Your task to perform on an android device: toggle show notifications on the lock screen Image 0: 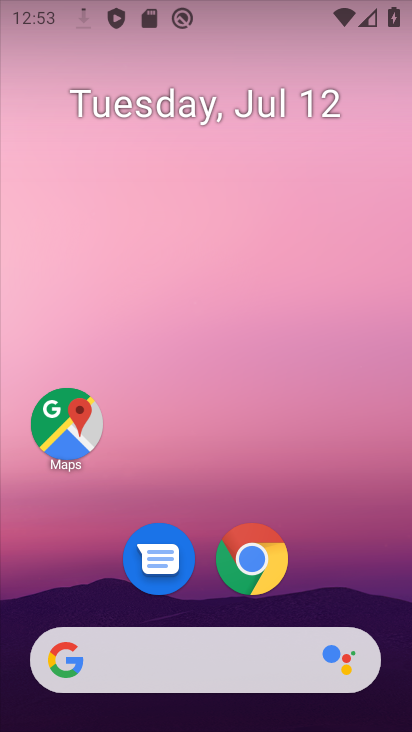
Step 0: drag from (372, 577) to (346, 239)
Your task to perform on an android device: toggle show notifications on the lock screen Image 1: 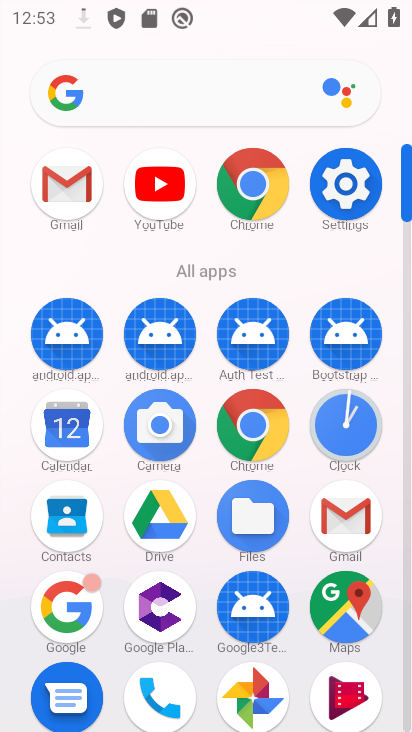
Step 1: click (358, 187)
Your task to perform on an android device: toggle show notifications on the lock screen Image 2: 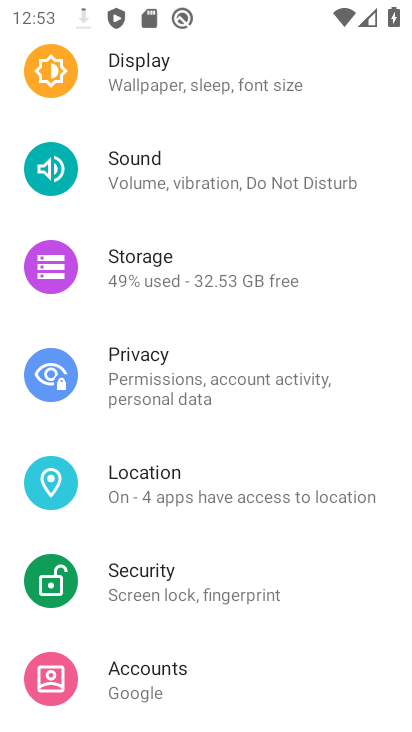
Step 2: drag from (359, 569) to (335, 426)
Your task to perform on an android device: toggle show notifications on the lock screen Image 3: 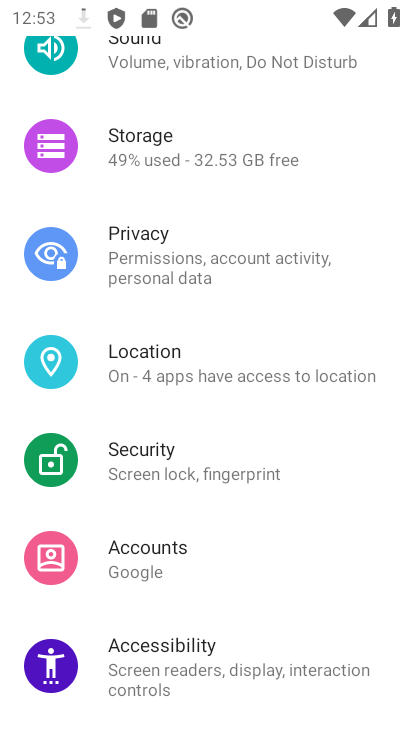
Step 3: drag from (353, 550) to (353, 413)
Your task to perform on an android device: toggle show notifications on the lock screen Image 4: 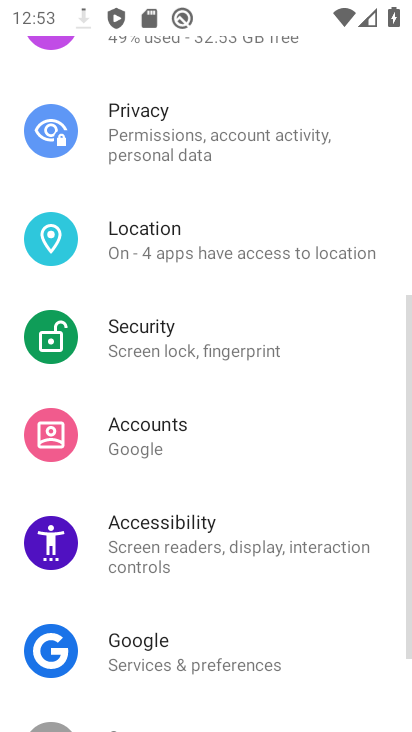
Step 4: drag from (335, 601) to (317, 442)
Your task to perform on an android device: toggle show notifications on the lock screen Image 5: 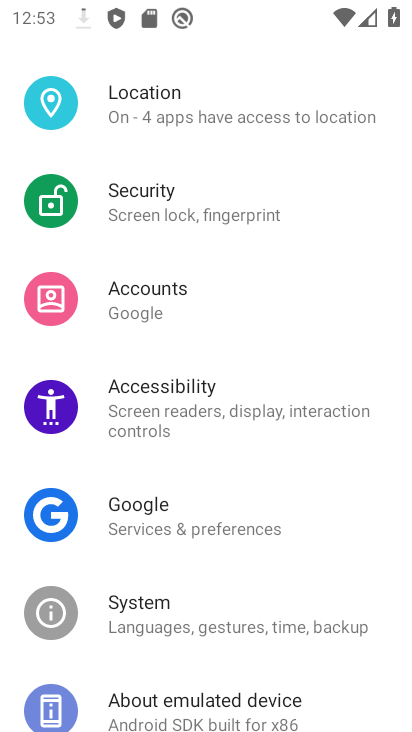
Step 5: drag from (325, 586) to (326, 445)
Your task to perform on an android device: toggle show notifications on the lock screen Image 6: 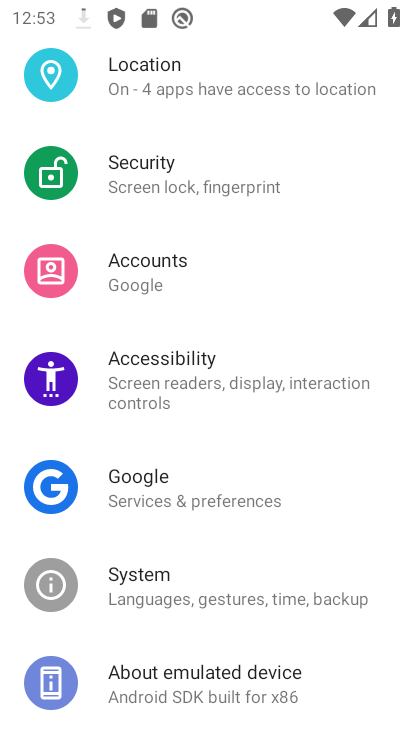
Step 6: drag from (338, 643) to (338, 495)
Your task to perform on an android device: toggle show notifications on the lock screen Image 7: 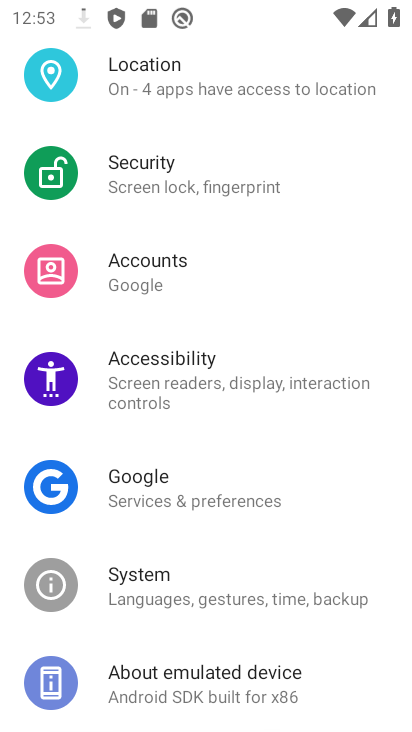
Step 7: drag from (346, 287) to (347, 487)
Your task to perform on an android device: toggle show notifications on the lock screen Image 8: 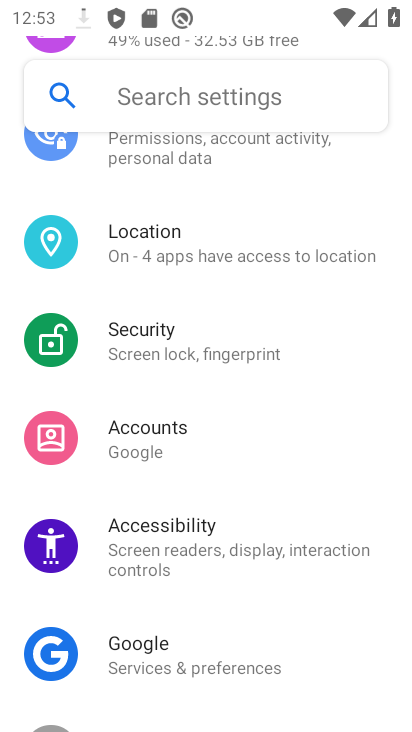
Step 8: drag from (345, 202) to (324, 434)
Your task to perform on an android device: toggle show notifications on the lock screen Image 9: 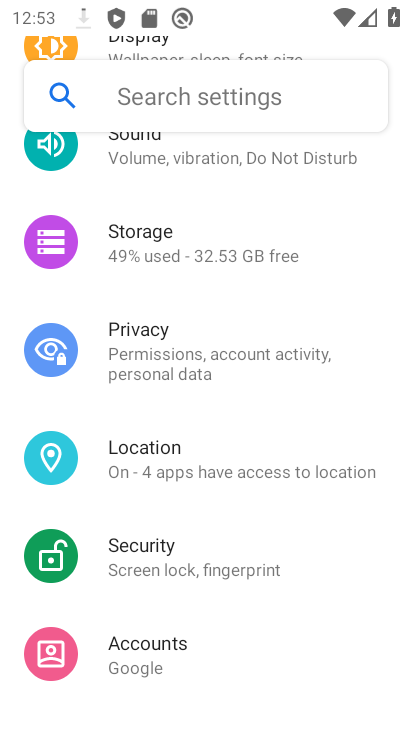
Step 9: drag from (330, 234) to (335, 377)
Your task to perform on an android device: toggle show notifications on the lock screen Image 10: 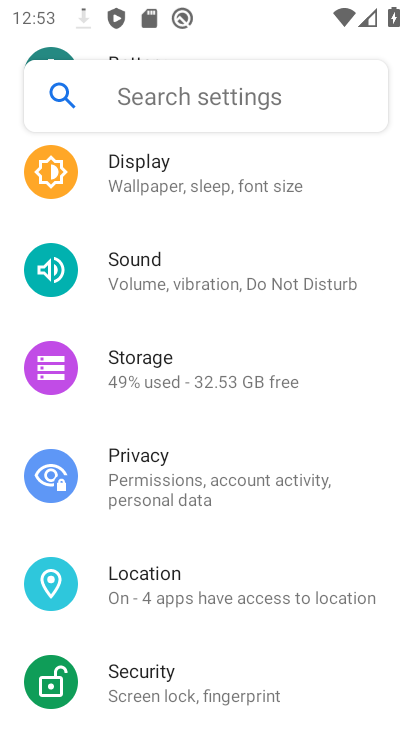
Step 10: drag from (346, 219) to (346, 384)
Your task to perform on an android device: toggle show notifications on the lock screen Image 11: 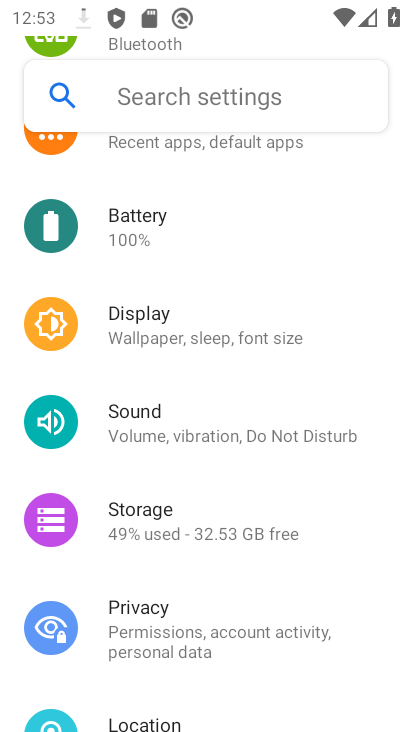
Step 11: drag from (308, 276) to (292, 458)
Your task to perform on an android device: toggle show notifications on the lock screen Image 12: 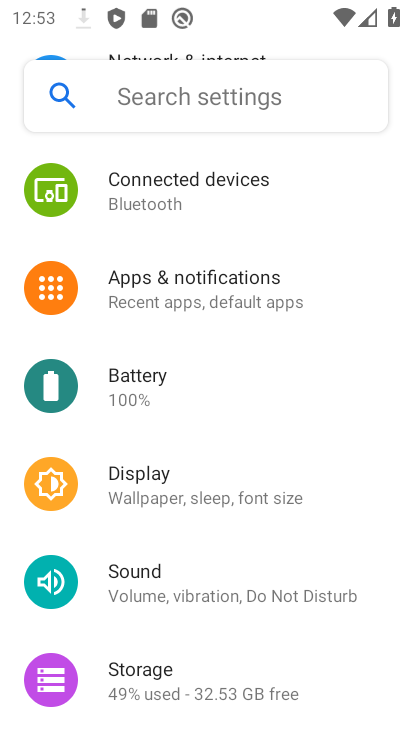
Step 12: drag from (327, 247) to (330, 498)
Your task to perform on an android device: toggle show notifications on the lock screen Image 13: 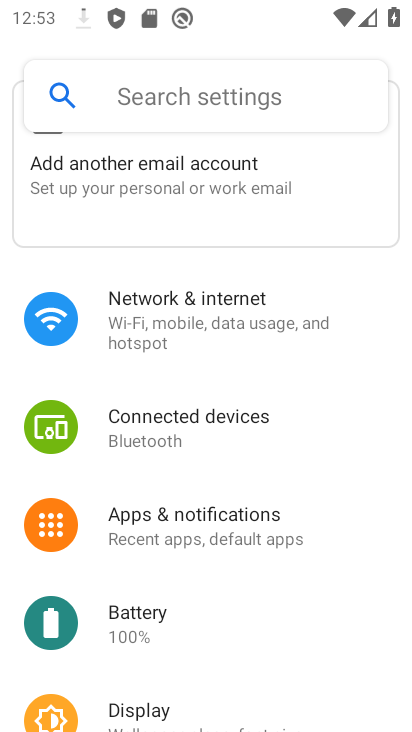
Step 13: click (262, 525)
Your task to perform on an android device: toggle show notifications on the lock screen Image 14: 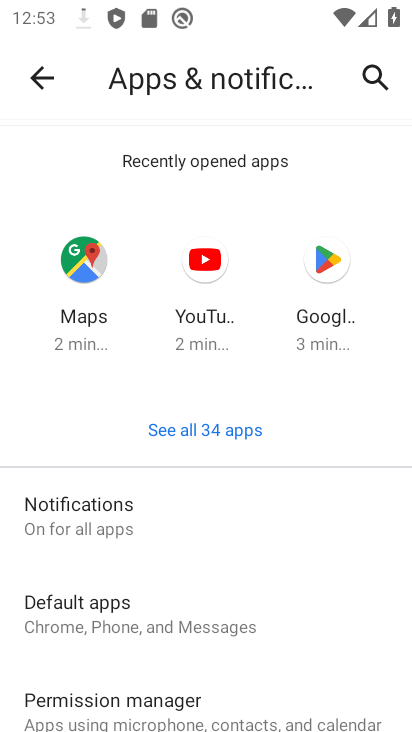
Step 14: click (95, 521)
Your task to perform on an android device: toggle show notifications on the lock screen Image 15: 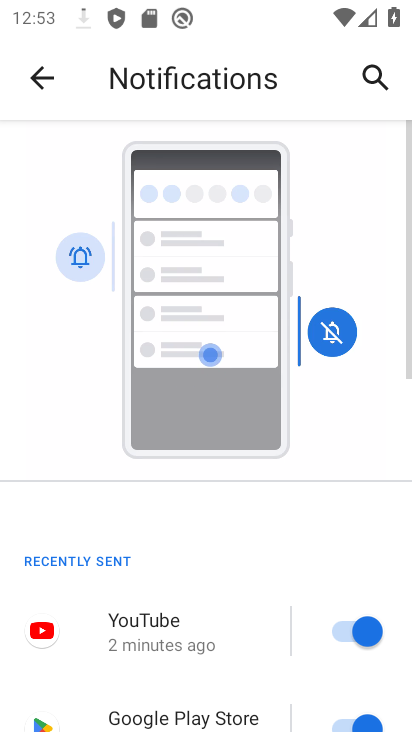
Step 15: drag from (265, 536) to (257, 388)
Your task to perform on an android device: toggle show notifications on the lock screen Image 16: 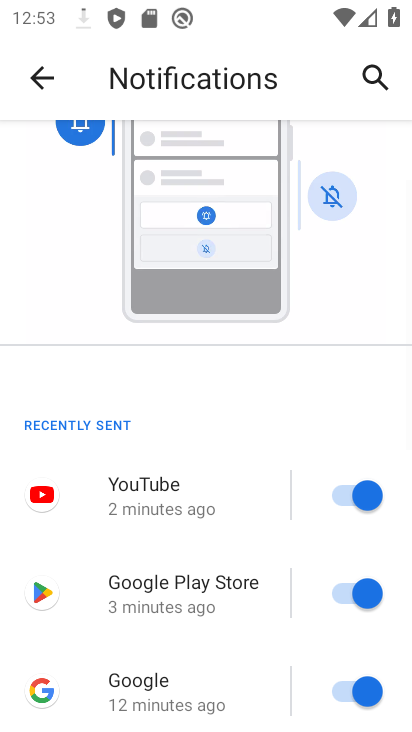
Step 16: drag from (249, 542) to (243, 412)
Your task to perform on an android device: toggle show notifications on the lock screen Image 17: 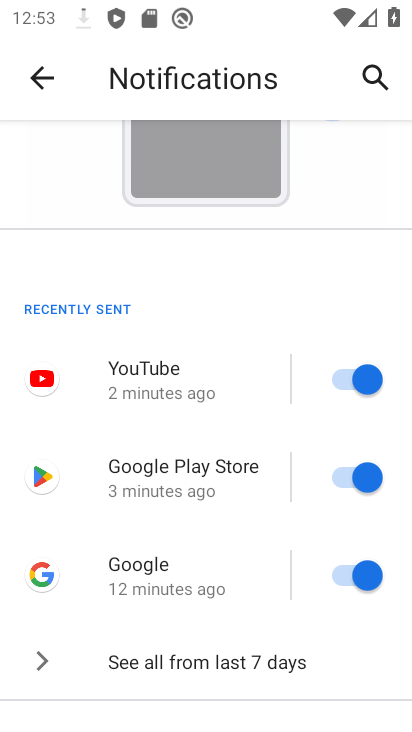
Step 17: drag from (240, 555) to (231, 387)
Your task to perform on an android device: toggle show notifications on the lock screen Image 18: 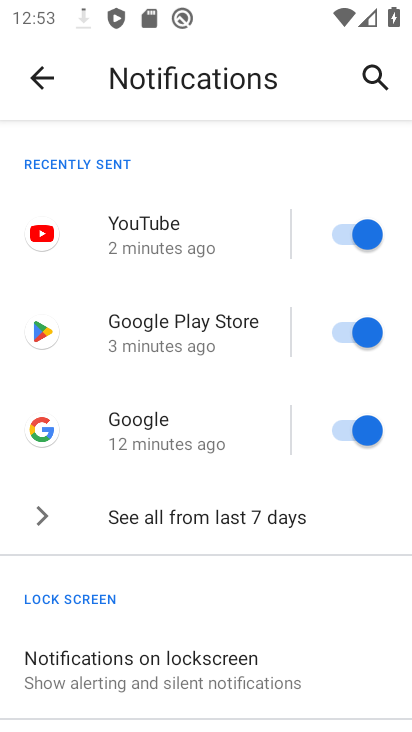
Step 18: drag from (223, 546) to (224, 356)
Your task to perform on an android device: toggle show notifications on the lock screen Image 19: 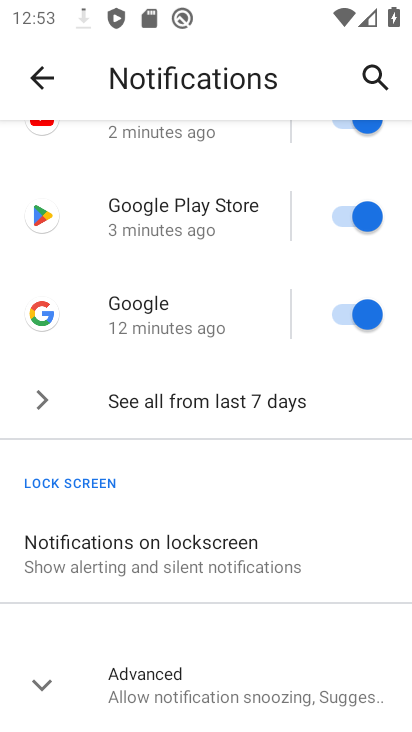
Step 19: click (215, 538)
Your task to perform on an android device: toggle show notifications on the lock screen Image 20: 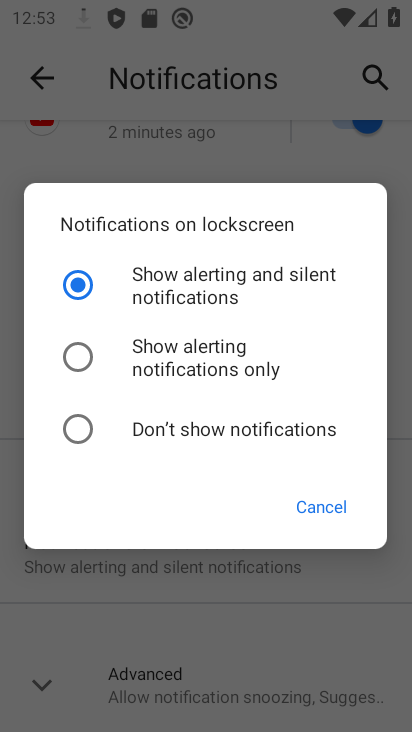
Step 20: click (82, 361)
Your task to perform on an android device: toggle show notifications on the lock screen Image 21: 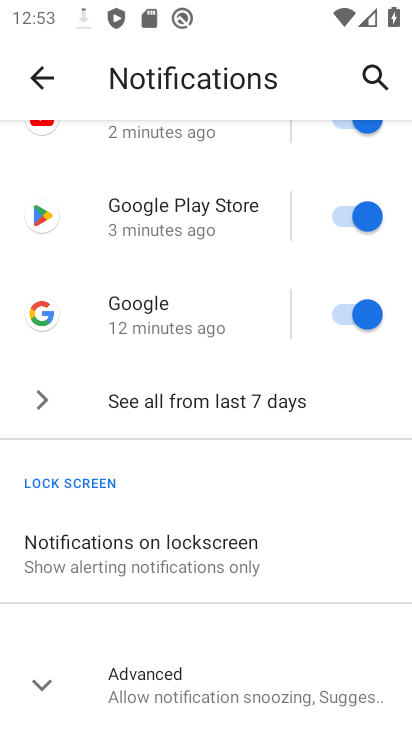
Step 21: task complete